Your task to perform on an android device: turn off notifications settings in the gmail app Image 0: 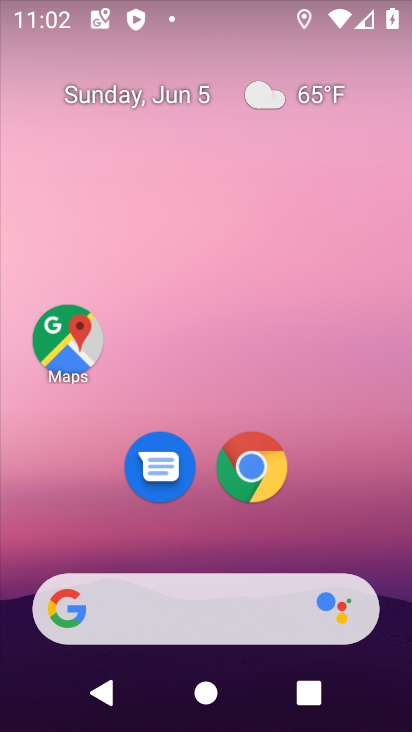
Step 0: drag from (353, 704) to (339, 39)
Your task to perform on an android device: turn off notifications settings in the gmail app Image 1: 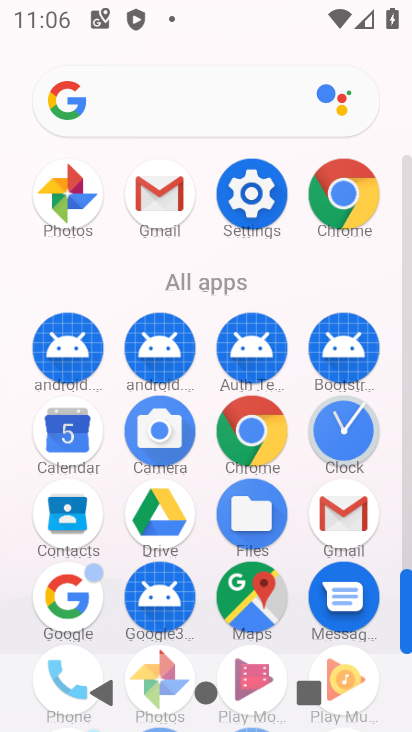
Step 1: click (346, 536)
Your task to perform on an android device: turn off notifications settings in the gmail app Image 2: 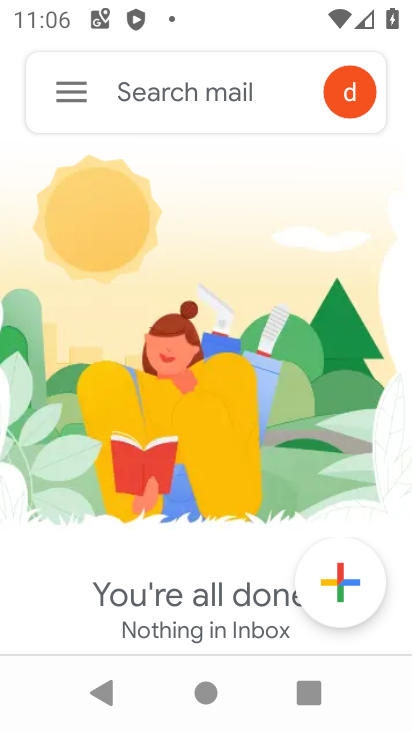
Step 2: press home button
Your task to perform on an android device: turn off notifications settings in the gmail app Image 3: 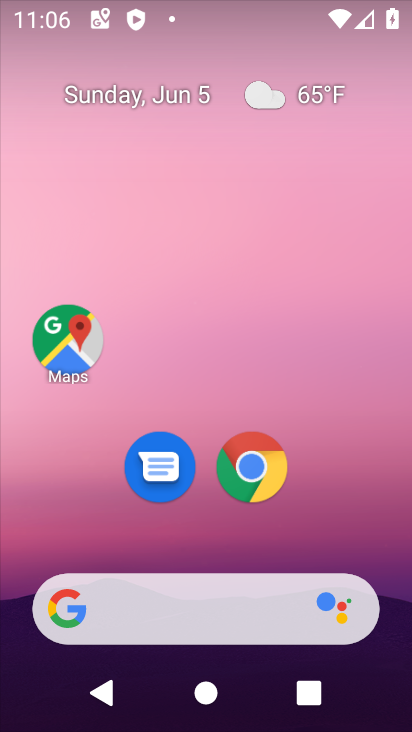
Step 3: drag from (295, 578) to (273, 134)
Your task to perform on an android device: turn off notifications settings in the gmail app Image 4: 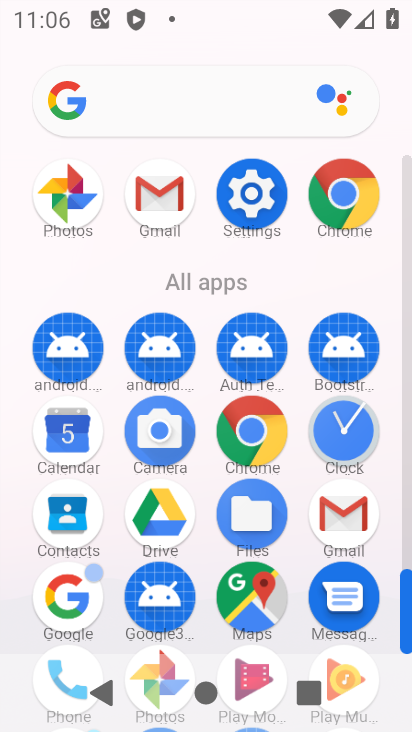
Step 4: drag from (205, 524) to (245, 300)
Your task to perform on an android device: turn off notifications settings in the gmail app Image 5: 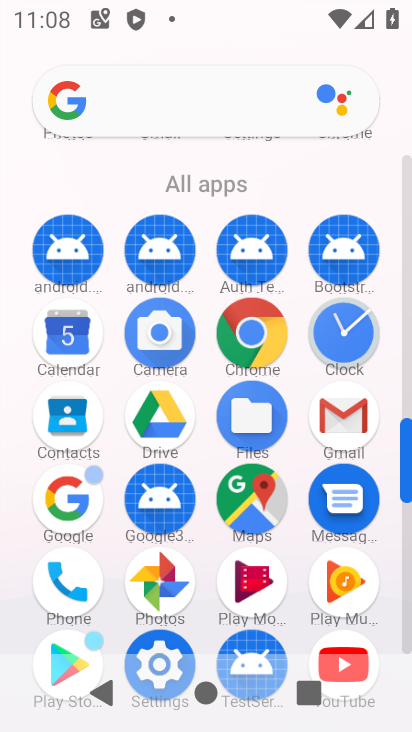
Step 5: click (330, 413)
Your task to perform on an android device: turn off notifications settings in the gmail app Image 6: 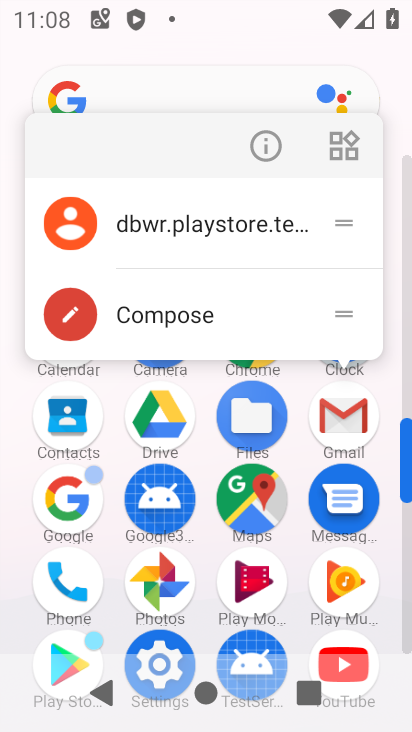
Step 6: click (268, 135)
Your task to perform on an android device: turn off notifications settings in the gmail app Image 7: 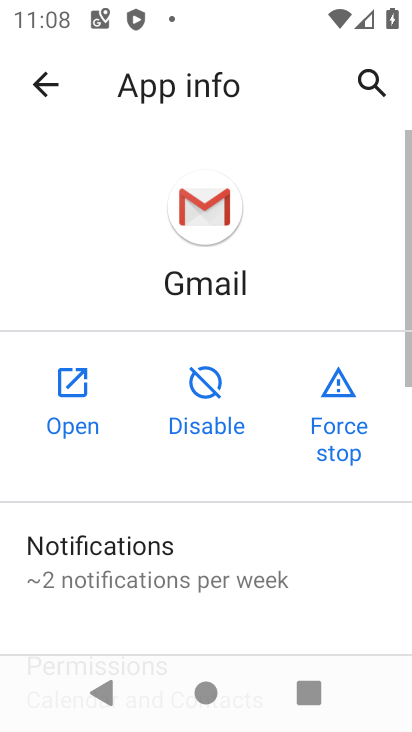
Step 7: click (182, 554)
Your task to perform on an android device: turn off notifications settings in the gmail app Image 8: 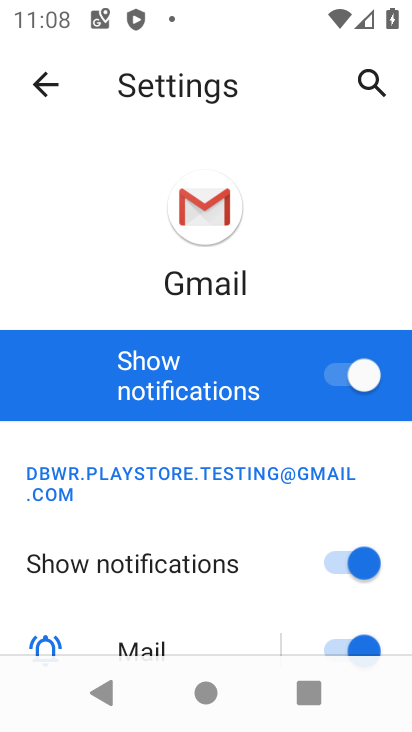
Step 8: click (246, 399)
Your task to perform on an android device: turn off notifications settings in the gmail app Image 9: 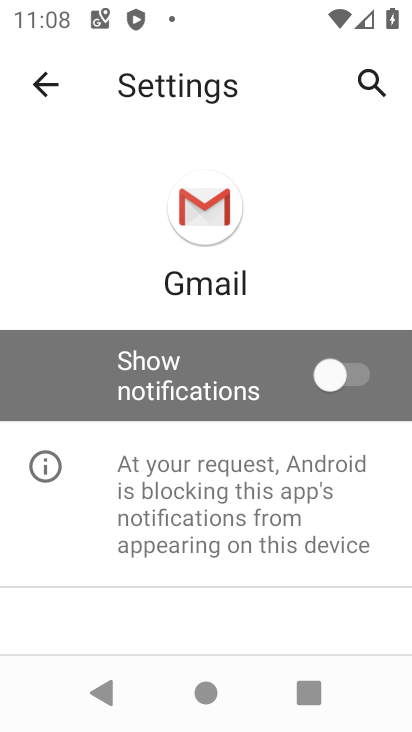
Step 9: task complete